Your task to perform on an android device: change notifications settings Image 0: 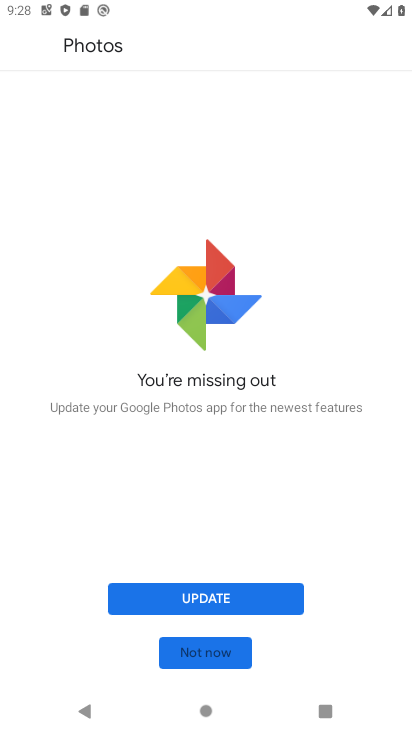
Step 0: press home button
Your task to perform on an android device: change notifications settings Image 1: 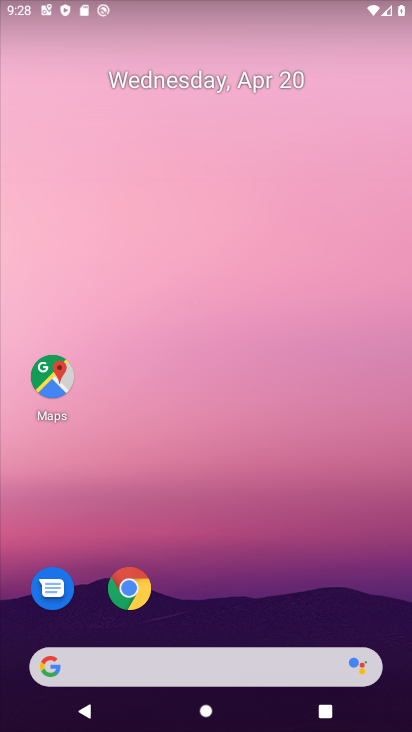
Step 1: drag from (205, 593) to (218, 161)
Your task to perform on an android device: change notifications settings Image 2: 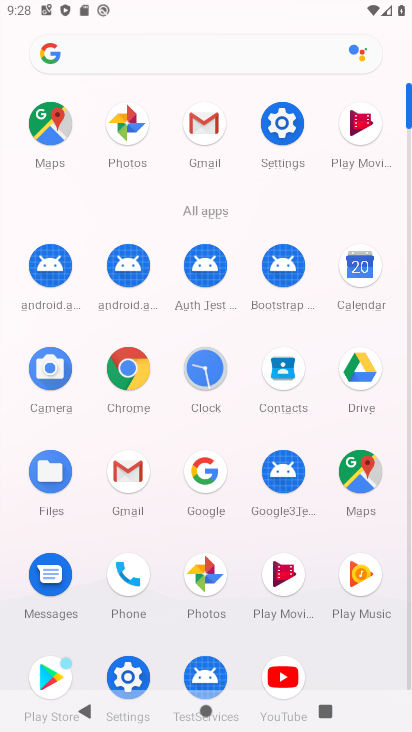
Step 2: click (273, 123)
Your task to perform on an android device: change notifications settings Image 3: 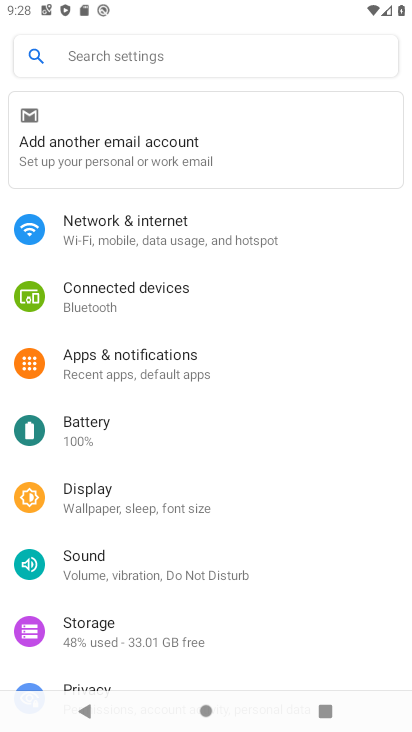
Step 3: click (132, 363)
Your task to perform on an android device: change notifications settings Image 4: 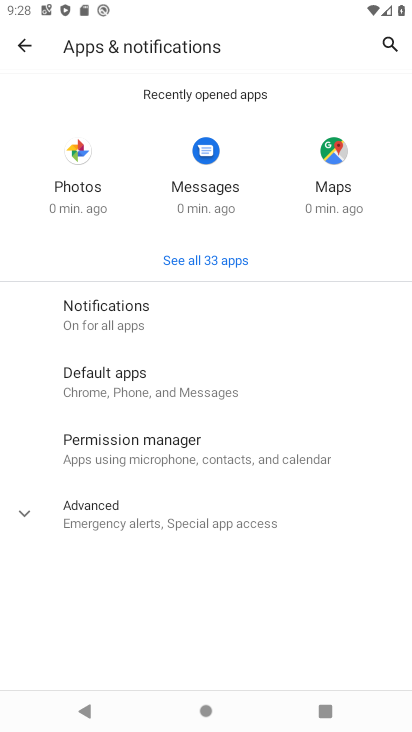
Step 4: click (104, 311)
Your task to perform on an android device: change notifications settings Image 5: 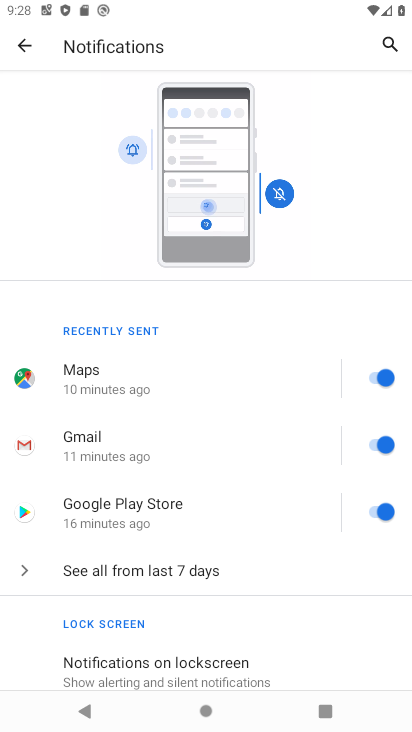
Step 5: drag from (196, 631) to (192, 311)
Your task to perform on an android device: change notifications settings Image 6: 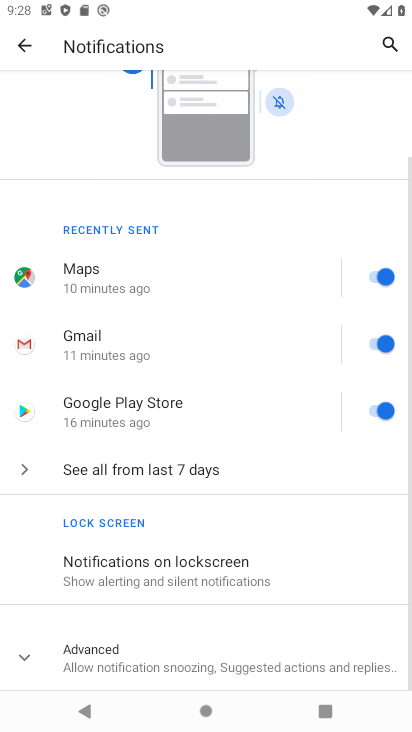
Step 6: click (136, 662)
Your task to perform on an android device: change notifications settings Image 7: 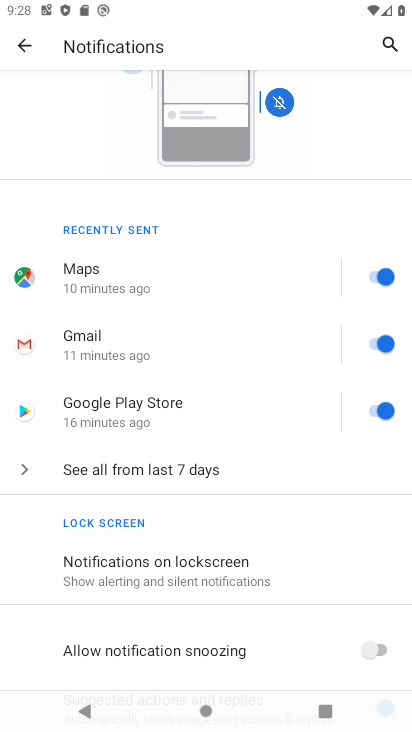
Step 7: task complete